Your task to perform on an android device: see creations saved in the google photos Image 0: 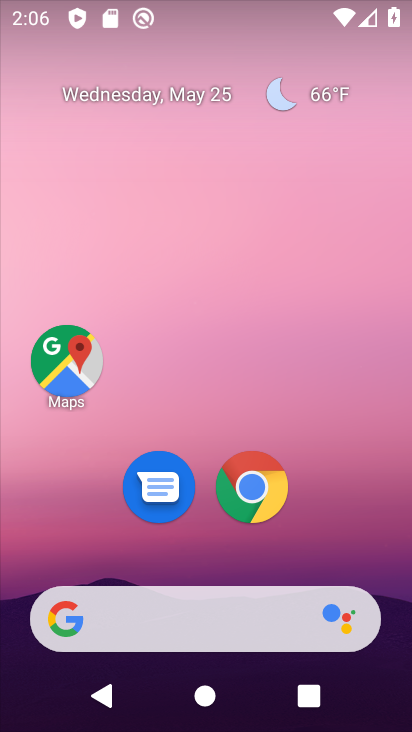
Step 0: click (408, 465)
Your task to perform on an android device: see creations saved in the google photos Image 1: 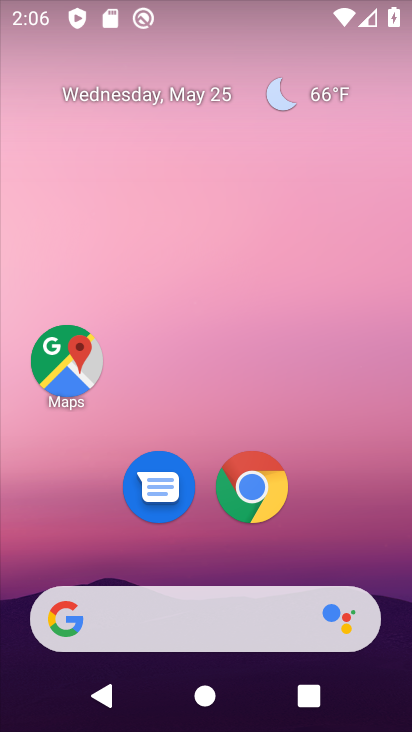
Step 1: drag from (223, 551) to (169, 0)
Your task to perform on an android device: see creations saved in the google photos Image 2: 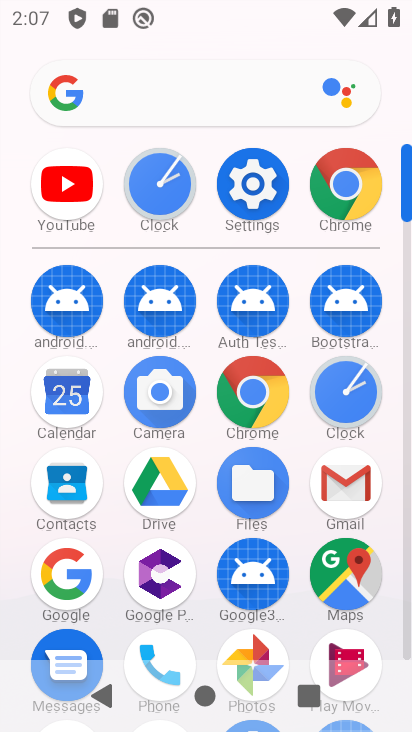
Step 2: click (260, 648)
Your task to perform on an android device: see creations saved in the google photos Image 3: 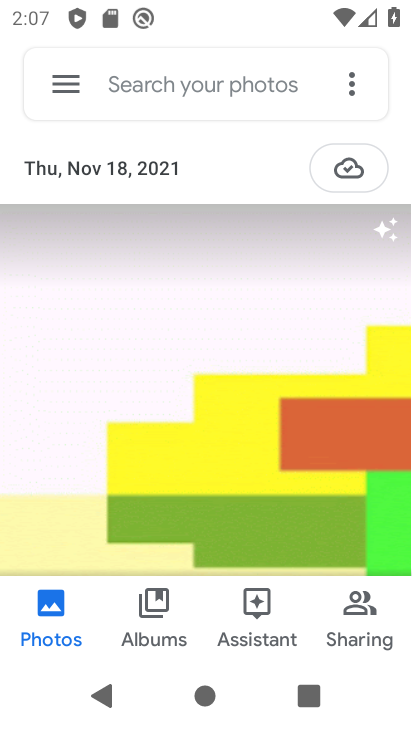
Step 3: click (160, 92)
Your task to perform on an android device: see creations saved in the google photos Image 4: 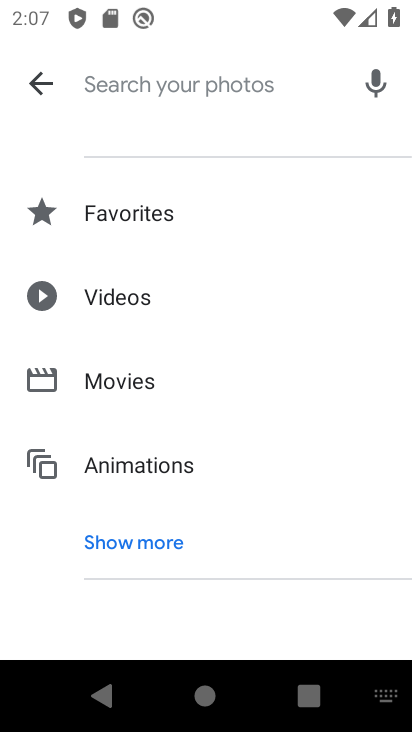
Step 4: click (159, 543)
Your task to perform on an android device: see creations saved in the google photos Image 5: 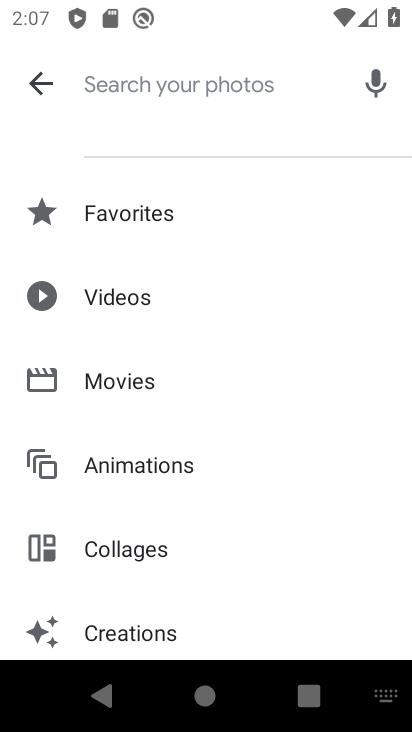
Step 5: click (136, 632)
Your task to perform on an android device: see creations saved in the google photos Image 6: 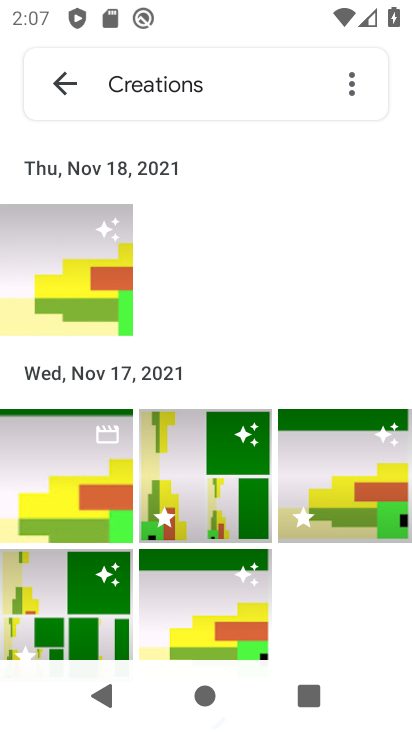
Step 6: task complete